Your task to perform on an android device: What's the weather going to be this weekend? Image 0: 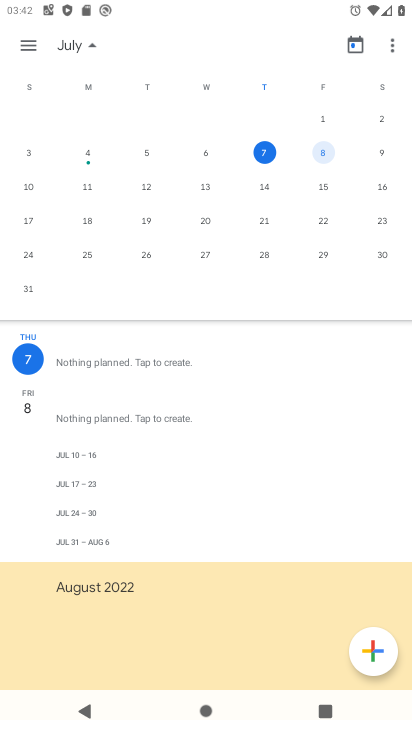
Step 0: press home button
Your task to perform on an android device: What's the weather going to be this weekend? Image 1: 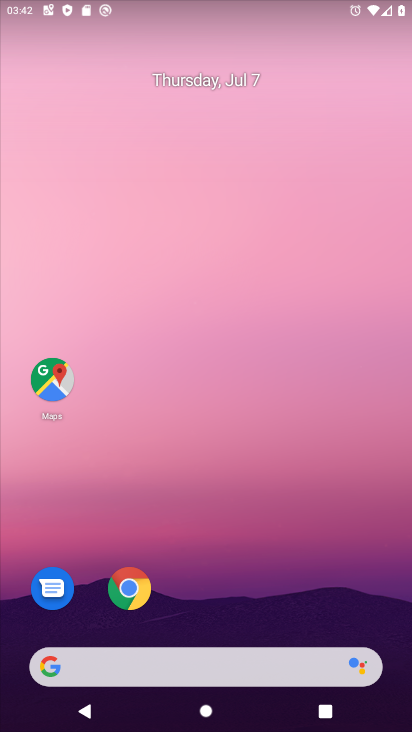
Step 1: drag from (165, 638) to (203, 222)
Your task to perform on an android device: What's the weather going to be this weekend? Image 2: 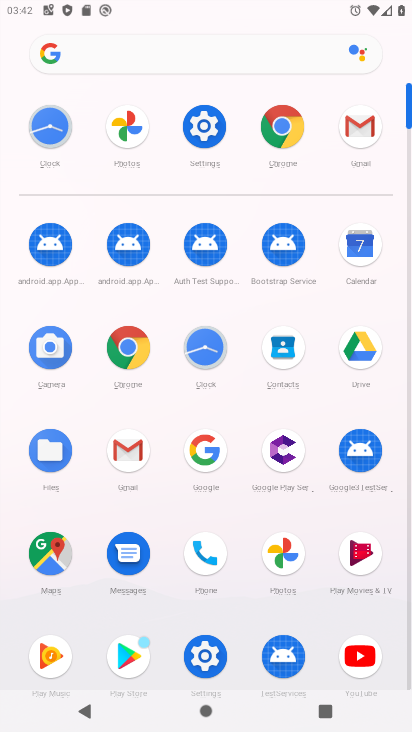
Step 2: click (189, 445)
Your task to perform on an android device: What's the weather going to be this weekend? Image 3: 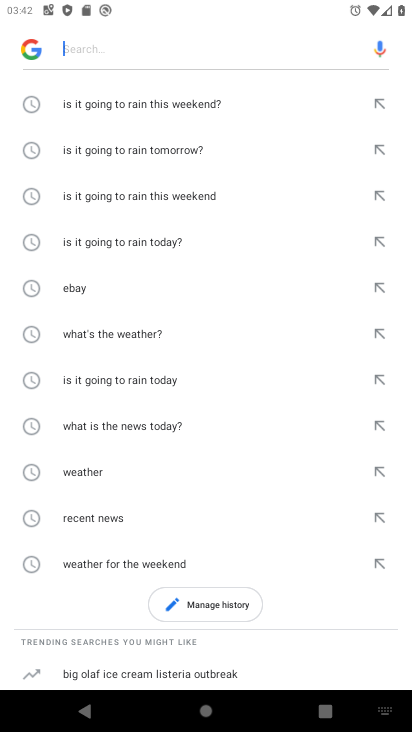
Step 3: click (106, 559)
Your task to perform on an android device: What's the weather going to be this weekend? Image 4: 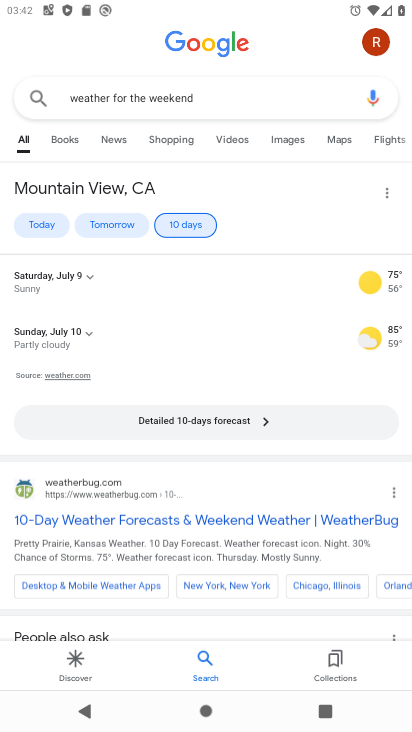
Step 4: click (180, 424)
Your task to perform on an android device: What's the weather going to be this weekend? Image 5: 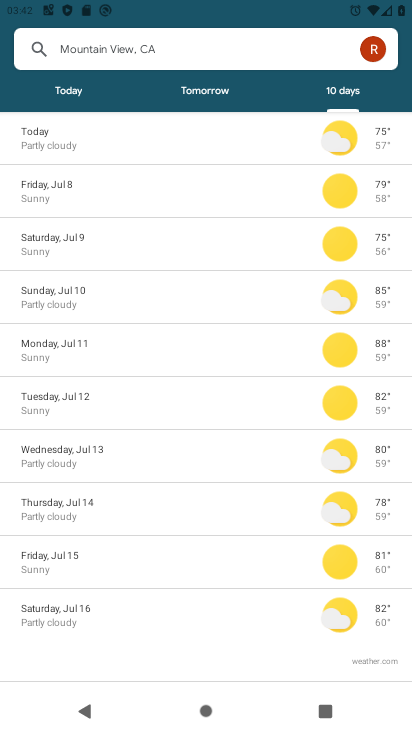
Step 5: task complete